Your task to perform on an android device: Is it going to rain this weekend? Image 0: 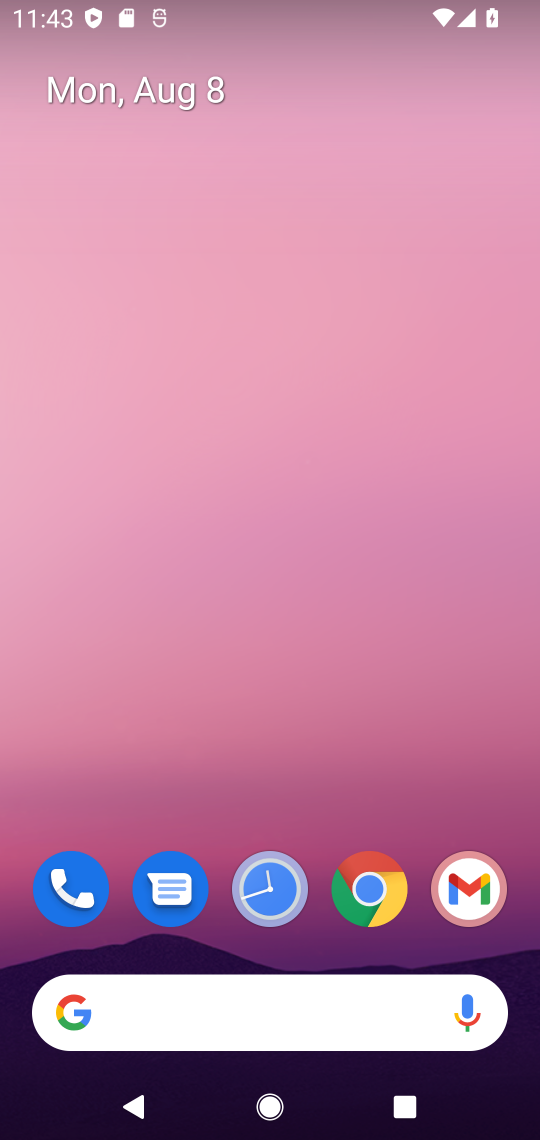
Step 0: click (271, 1005)
Your task to perform on an android device: Is it going to rain this weekend? Image 1: 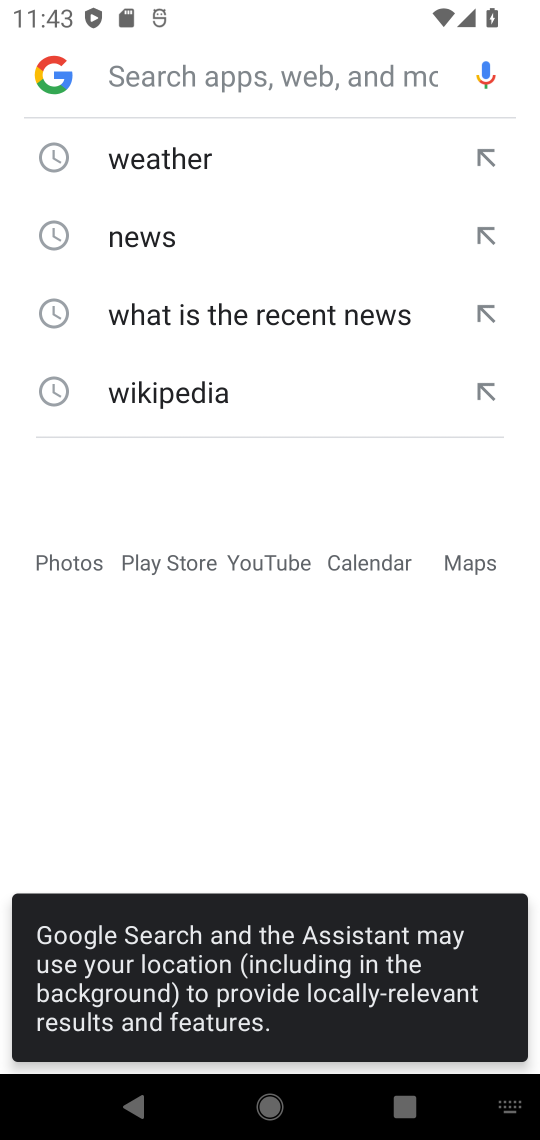
Step 1: click (287, 138)
Your task to perform on an android device: Is it going to rain this weekend? Image 2: 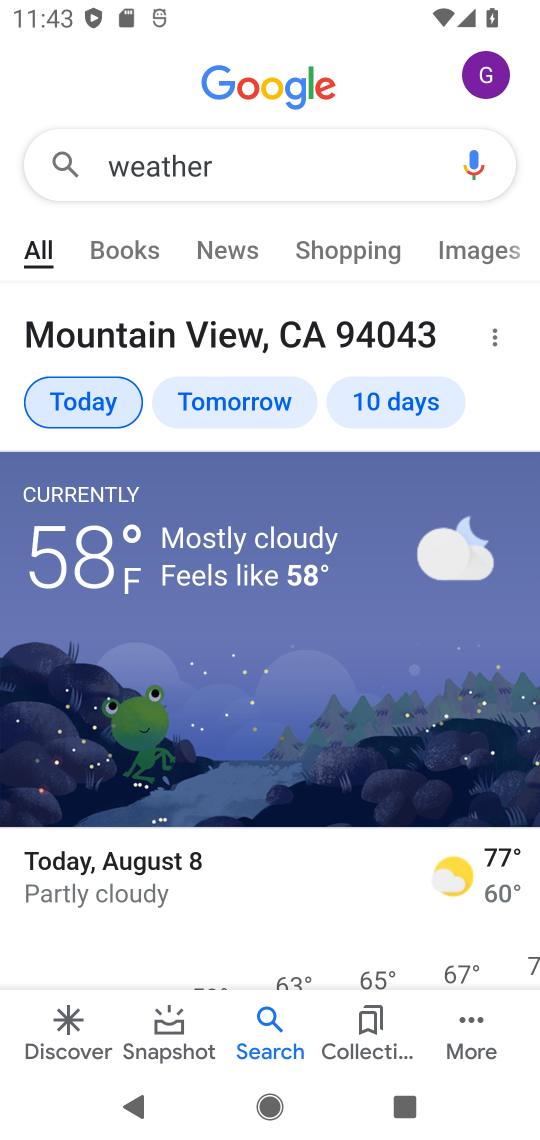
Step 2: drag from (407, 843) to (405, 433)
Your task to perform on an android device: Is it going to rain this weekend? Image 3: 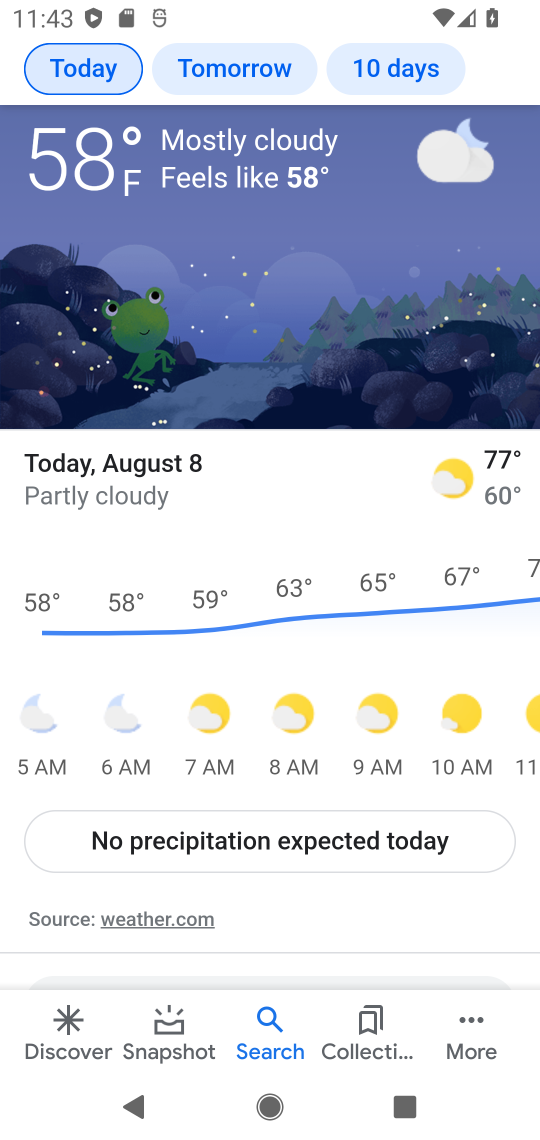
Step 3: click (358, 75)
Your task to perform on an android device: Is it going to rain this weekend? Image 4: 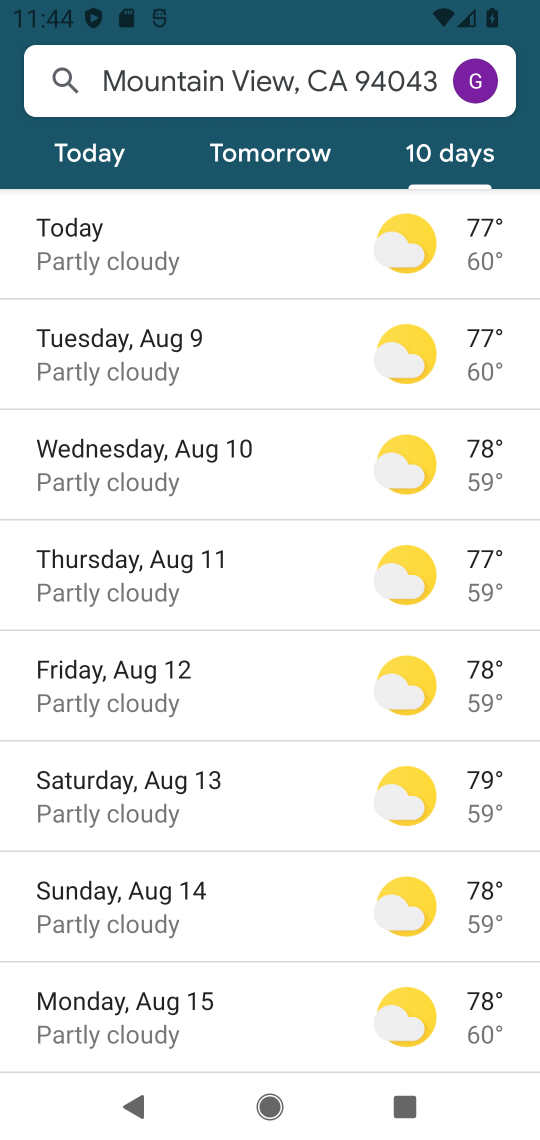
Step 4: click (237, 767)
Your task to perform on an android device: Is it going to rain this weekend? Image 5: 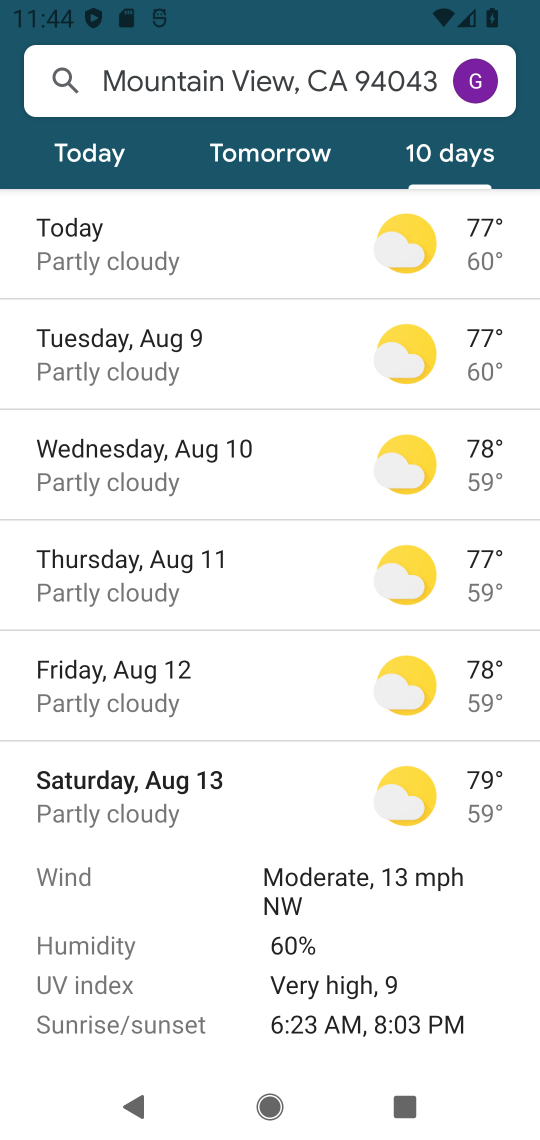
Step 5: task complete